Your task to perform on an android device: turn on sleep mode Image 0: 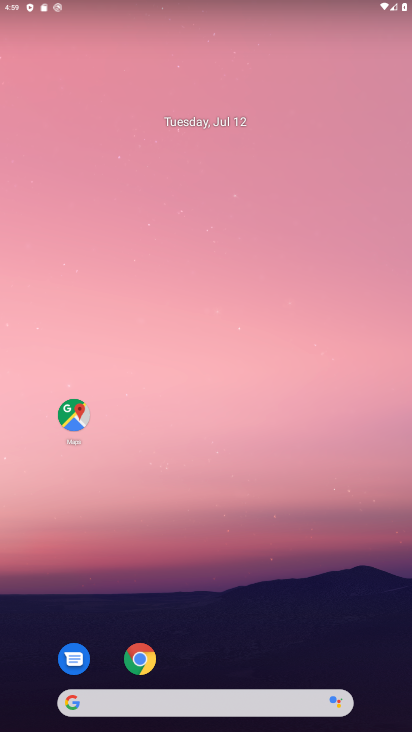
Step 0: drag from (385, 660) to (338, 122)
Your task to perform on an android device: turn on sleep mode Image 1: 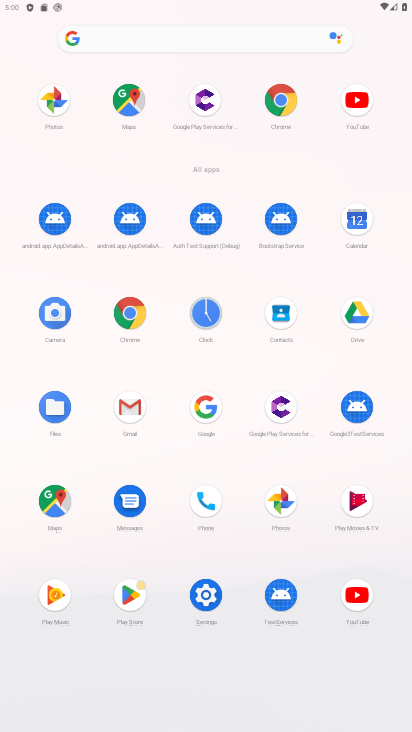
Step 1: click (206, 596)
Your task to perform on an android device: turn on sleep mode Image 2: 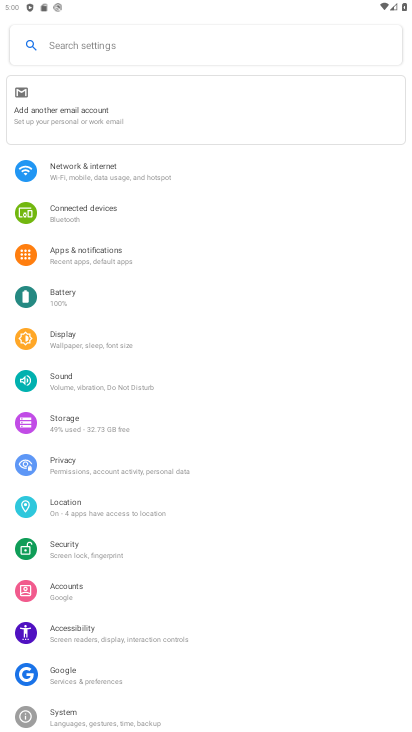
Step 2: click (71, 340)
Your task to perform on an android device: turn on sleep mode Image 3: 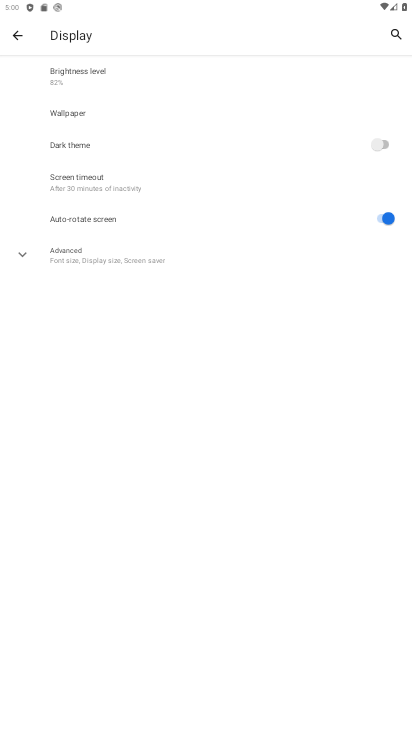
Step 3: click (24, 256)
Your task to perform on an android device: turn on sleep mode Image 4: 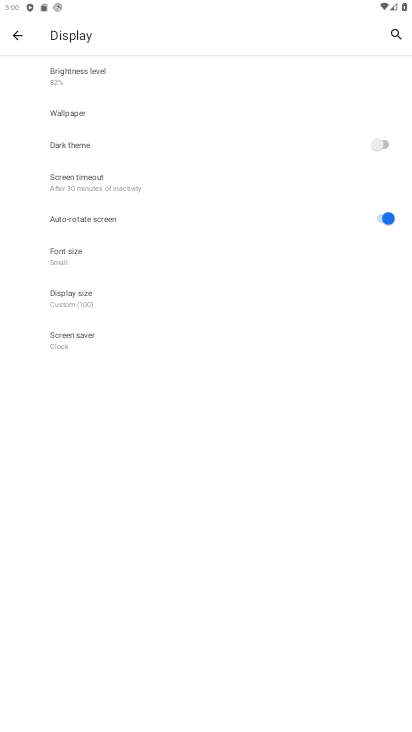
Step 4: task complete